Your task to perform on an android device: Open maps Image 0: 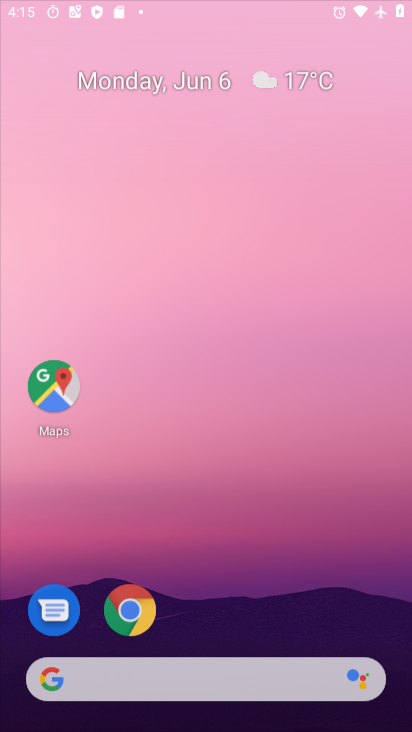
Step 0: click (185, 58)
Your task to perform on an android device: Open maps Image 1: 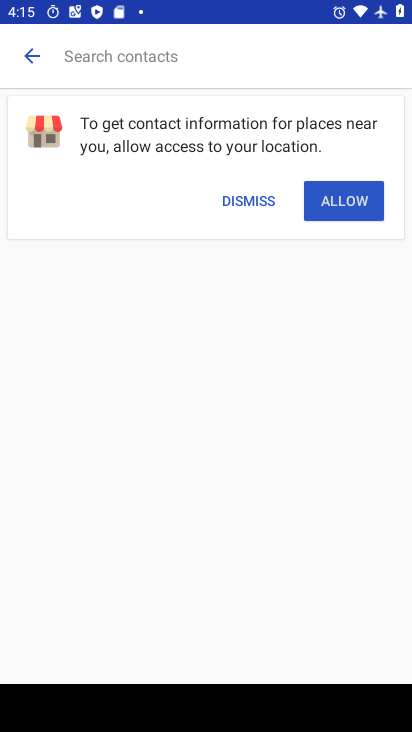
Step 1: press back button
Your task to perform on an android device: Open maps Image 2: 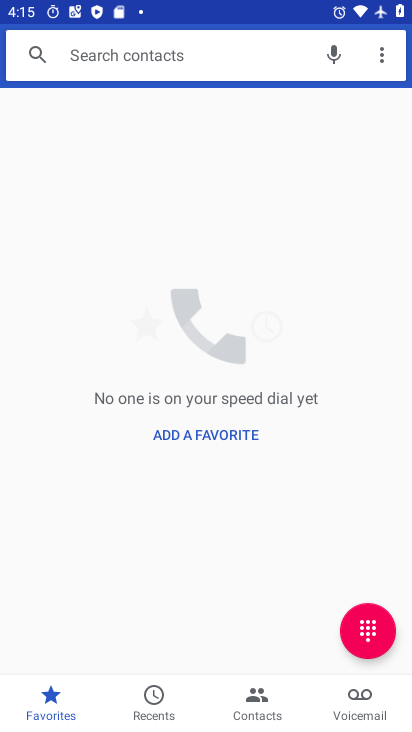
Step 2: press back button
Your task to perform on an android device: Open maps Image 3: 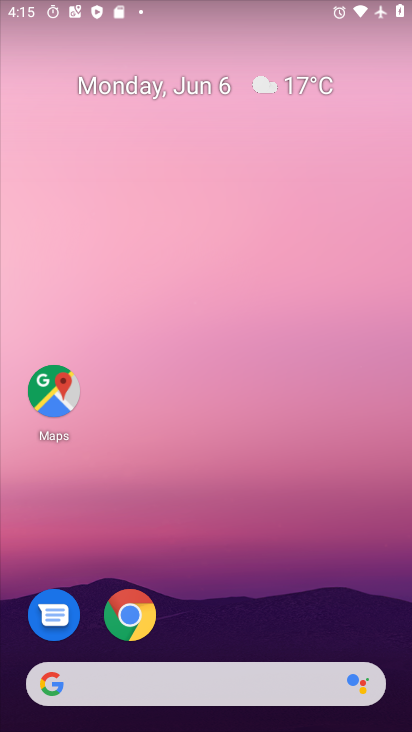
Step 3: drag from (193, 392) to (173, 39)
Your task to perform on an android device: Open maps Image 4: 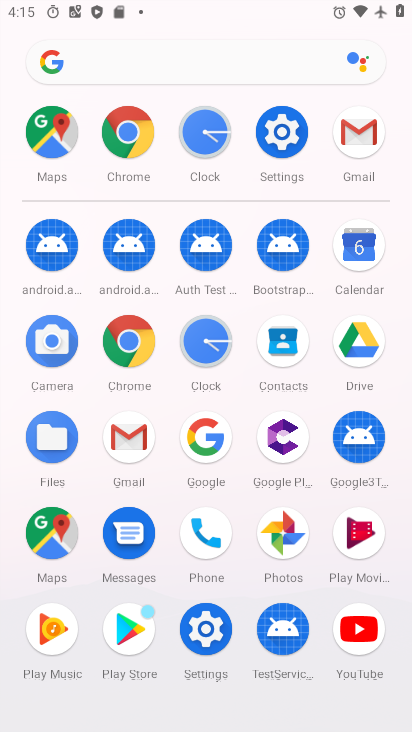
Step 4: click (42, 138)
Your task to perform on an android device: Open maps Image 5: 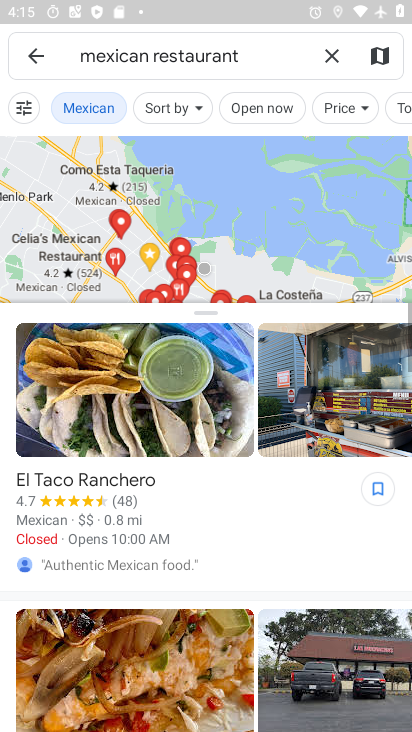
Step 5: click (38, 43)
Your task to perform on an android device: Open maps Image 6: 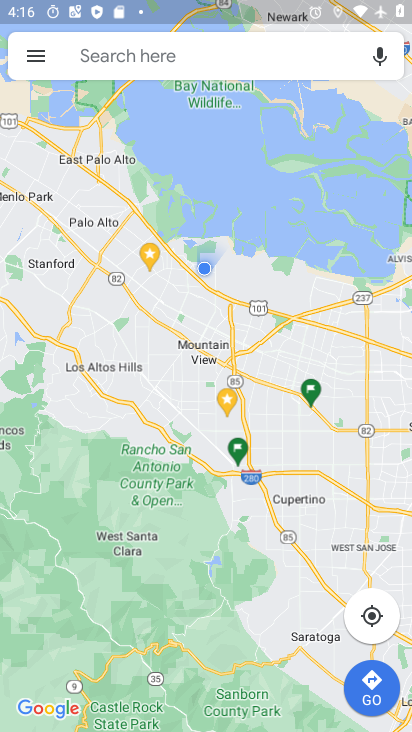
Step 6: task complete